Your task to perform on an android device: turn off improve location accuracy Image 0: 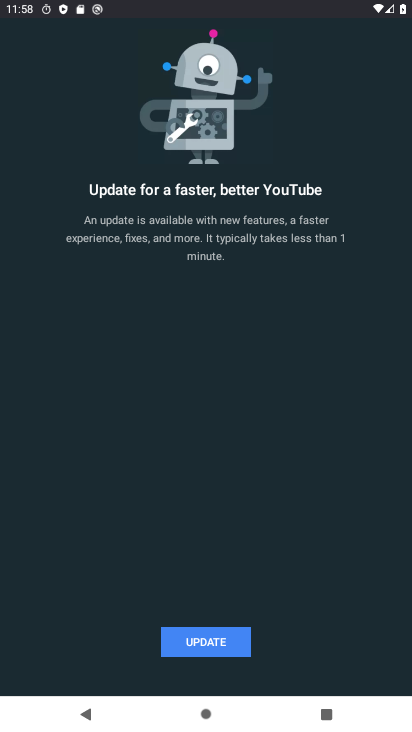
Step 0: press home button
Your task to perform on an android device: turn off improve location accuracy Image 1: 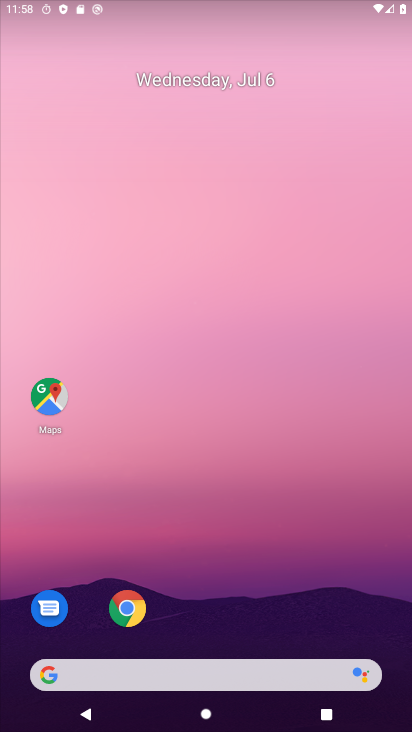
Step 1: drag from (100, 678) to (212, 39)
Your task to perform on an android device: turn off improve location accuracy Image 2: 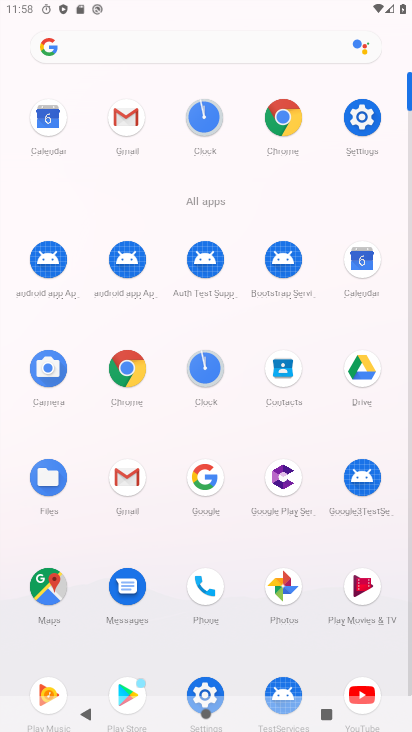
Step 2: click (353, 119)
Your task to perform on an android device: turn off improve location accuracy Image 3: 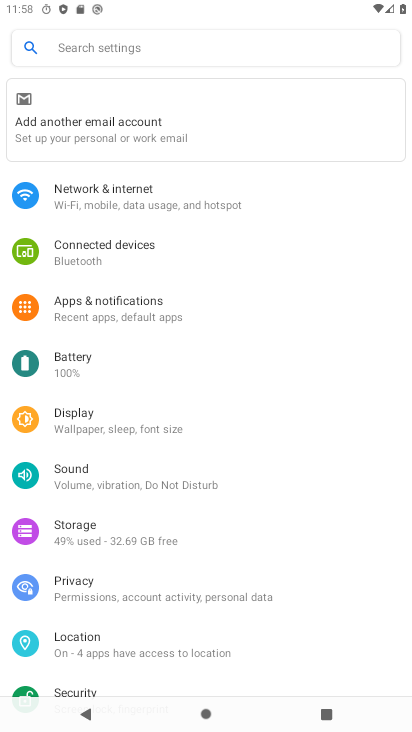
Step 3: click (92, 653)
Your task to perform on an android device: turn off improve location accuracy Image 4: 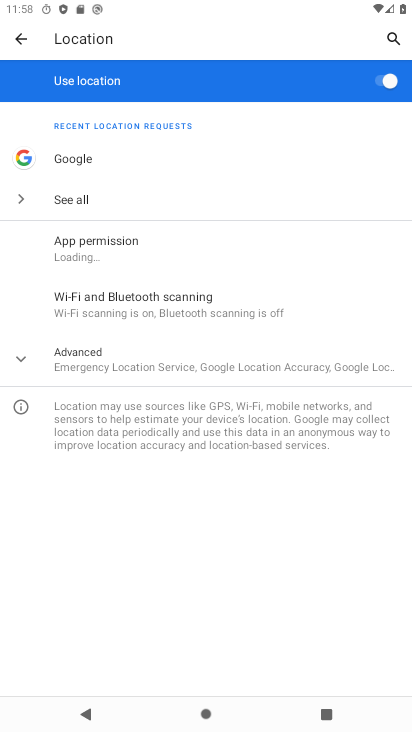
Step 4: click (150, 365)
Your task to perform on an android device: turn off improve location accuracy Image 5: 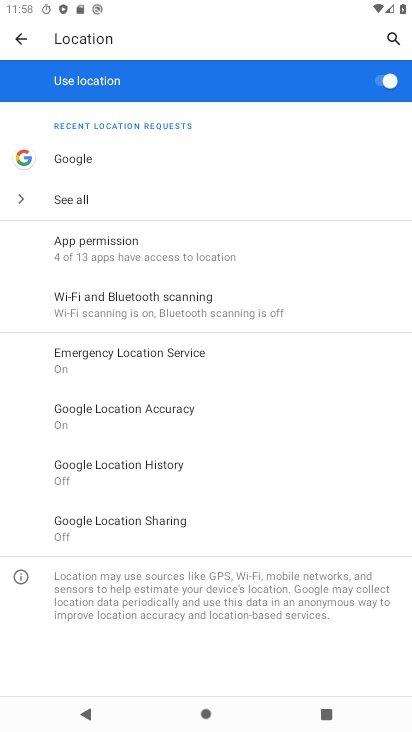
Step 5: click (152, 413)
Your task to perform on an android device: turn off improve location accuracy Image 6: 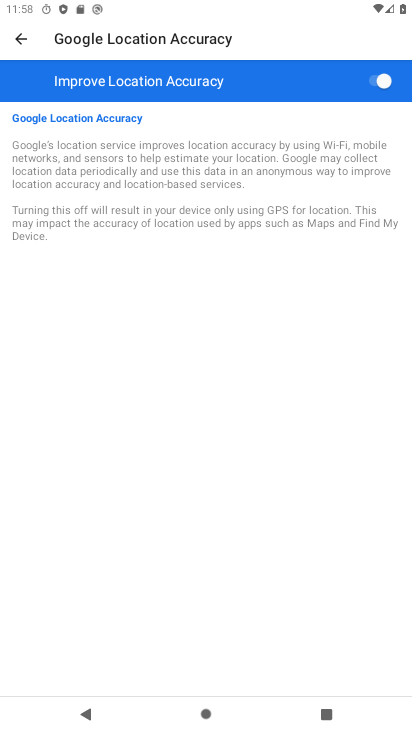
Step 6: click (377, 88)
Your task to perform on an android device: turn off improve location accuracy Image 7: 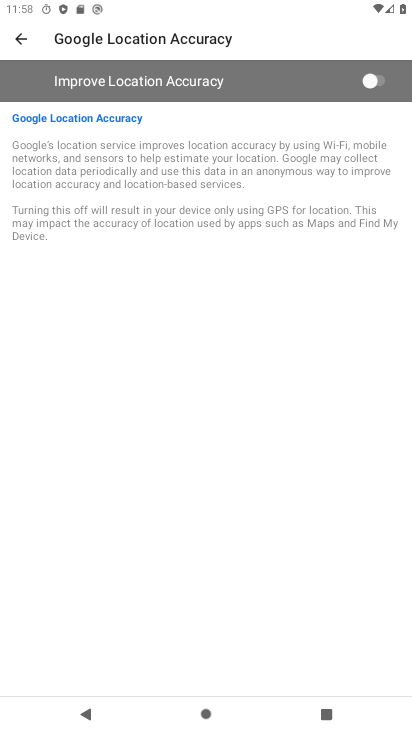
Step 7: task complete